Your task to perform on an android device: toggle pop-ups in chrome Image 0: 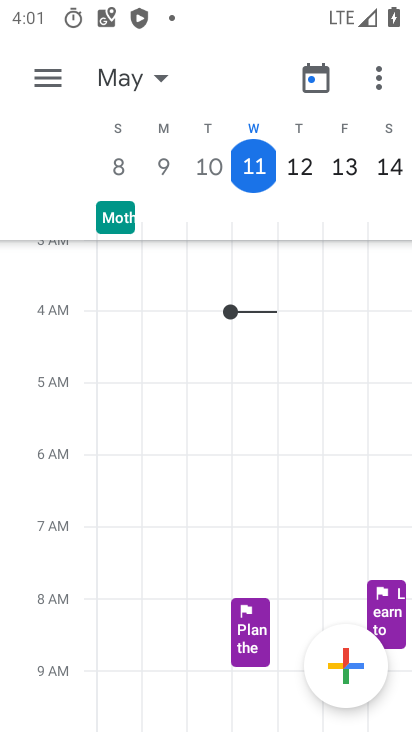
Step 0: press home button
Your task to perform on an android device: toggle pop-ups in chrome Image 1: 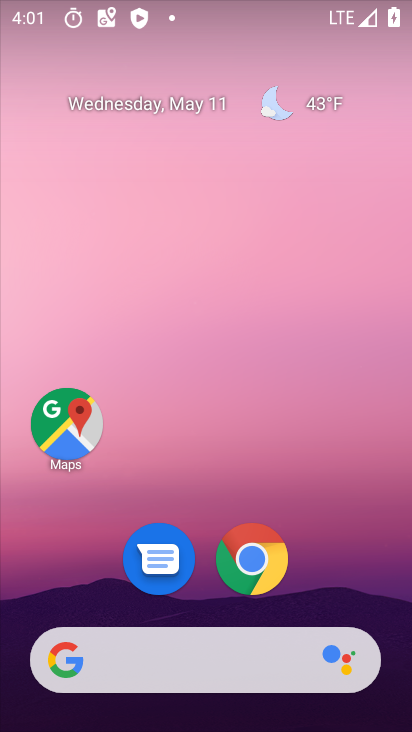
Step 1: click (248, 553)
Your task to perform on an android device: toggle pop-ups in chrome Image 2: 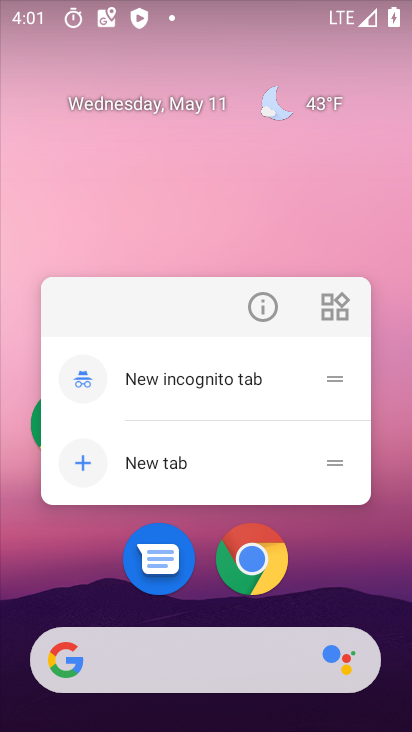
Step 2: click (245, 574)
Your task to perform on an android device: toggle pop-ups in chrome Image 3: 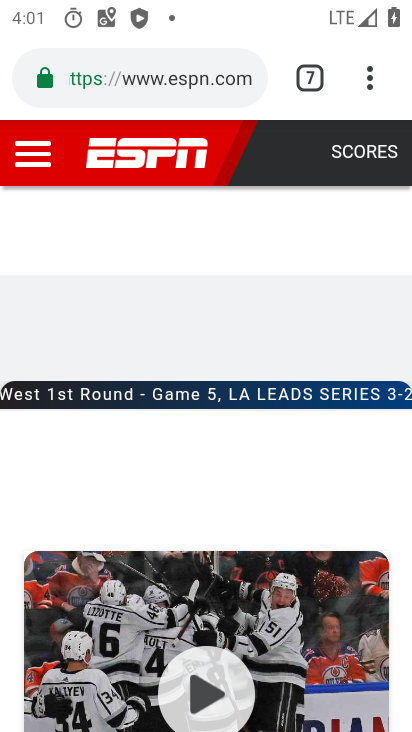
Step 3: click (307, 73)
Your task to perform on an android device: toggle pop-ups in chrome Image 4: 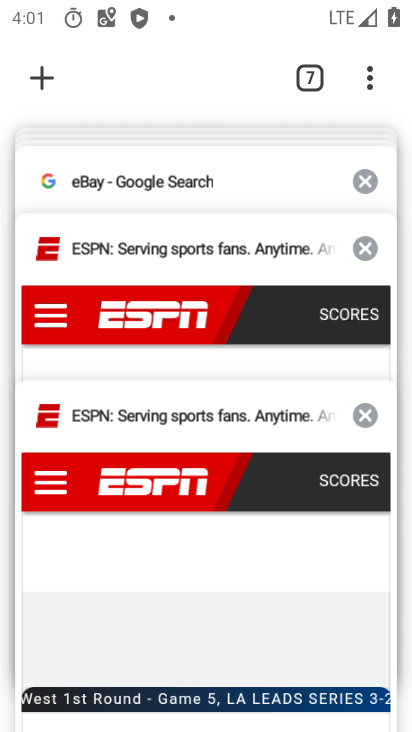
Step 4: click (360, 91)
Your task to perform on an android device: toggle pop-ups in chrome Image 5: 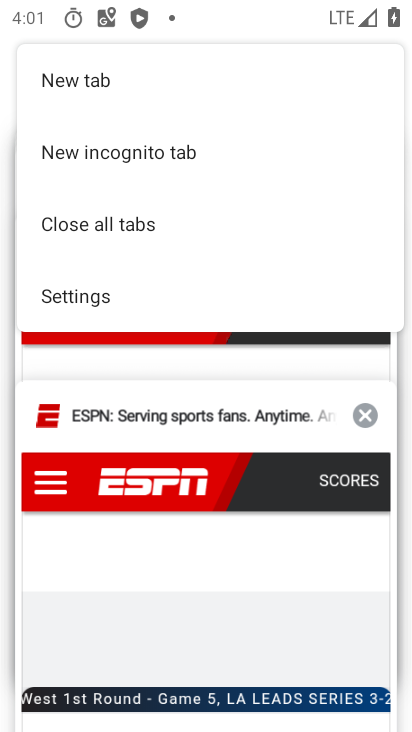
Step 5: click (162, 297)
Your task to perform on an android device: toggle pop-ups in chrome Image 6: 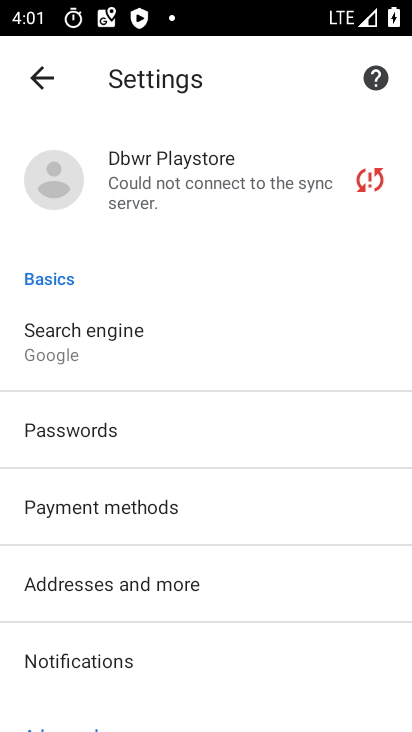
Step 6: click (38, 75)
Your task to perform on an android device: toggle pop-ups in chrome Image 7: 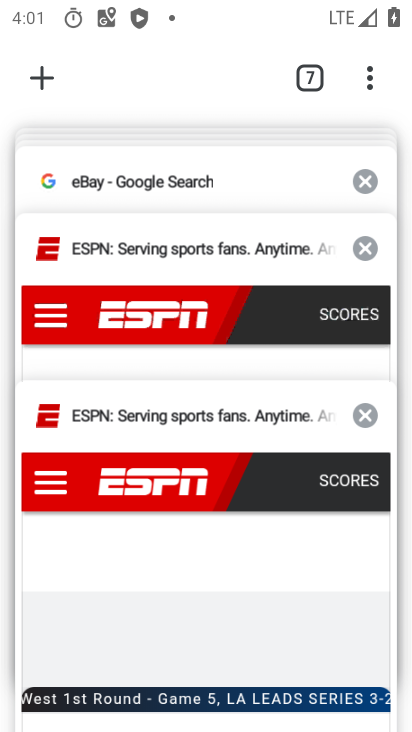
Step 7: click (215, 295)
Your task to perform on an android device: toggle pop-ups in chrome Image 8: 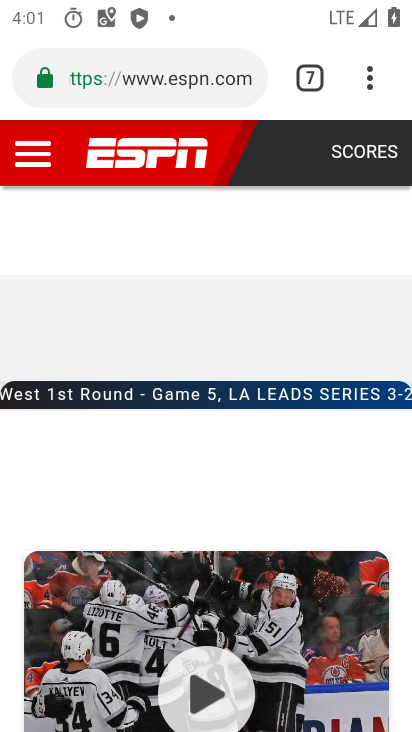
Step 8: click (370, 72)
Your task to perform on an android device: toggle pop-ups in chrome Image 9: 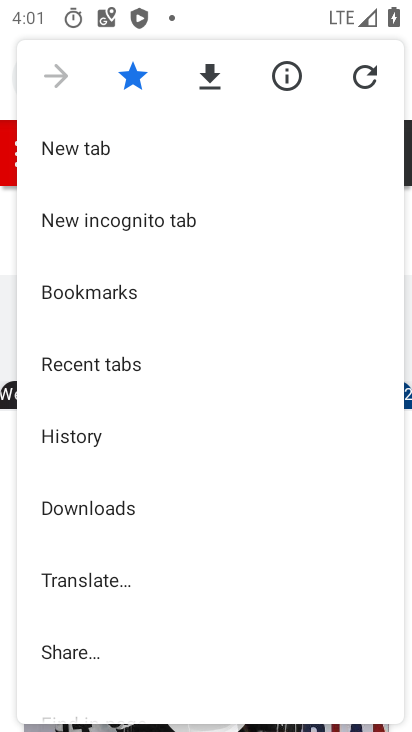
Step 9: drag from (207, 593) to (193, 268)
Your task to perform on an android device: toggle pop-ups in chrome Image 10: 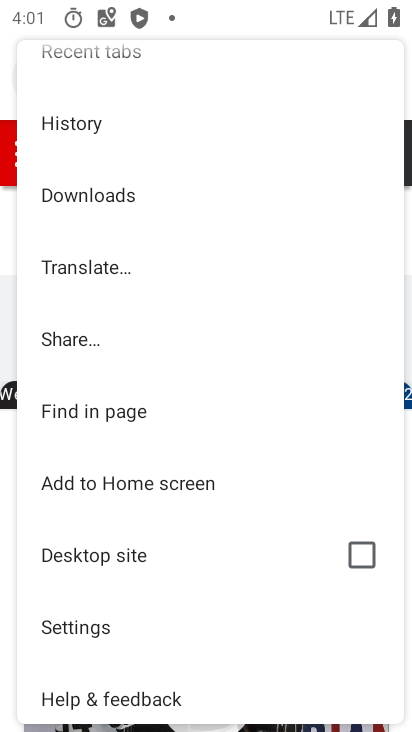
Step 10: click (175, 616)
Your task to perform on an android device: toggle pop-ups in chrome Image 11: 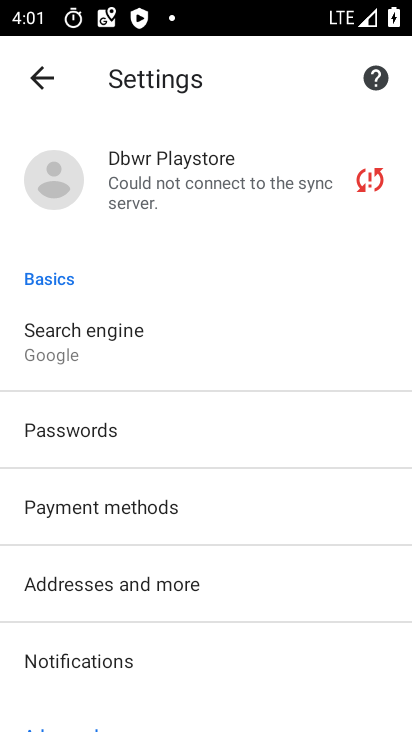
Step 11: drag from (224, 624) to (179, 253)
Your task to perform on an android device: toggle pop-ups in chrome Image 12: 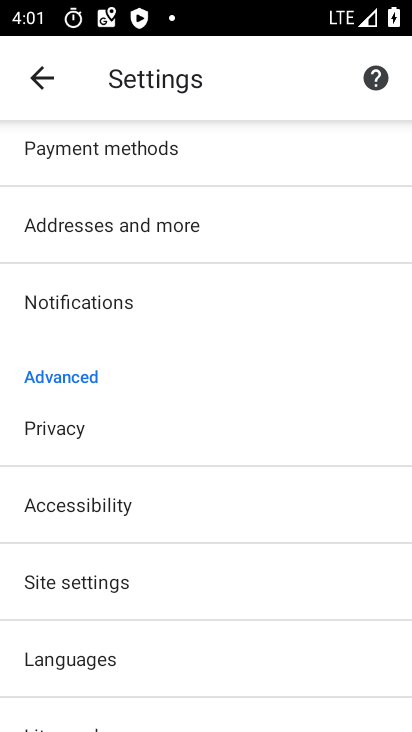
Step 12: drag from (169, 634) to (147, 329)
Your task to perform on an android device: toggle pop-ups in chrome Image 13: 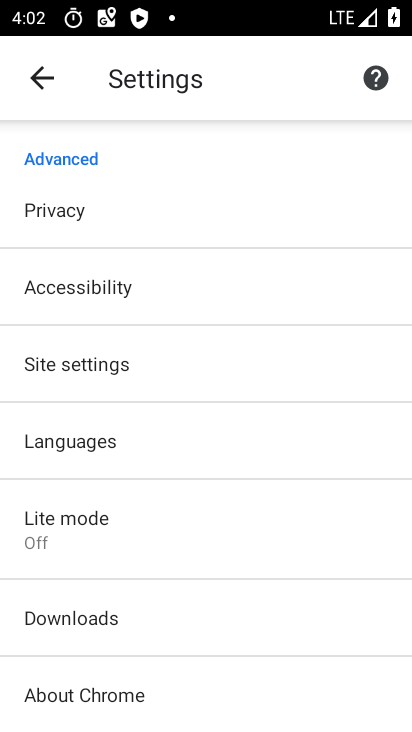
Step 13: drag from (151, 660) to (152, 387)
Your task to perform on an android device: toggle pop-ups in chrome Image 14: 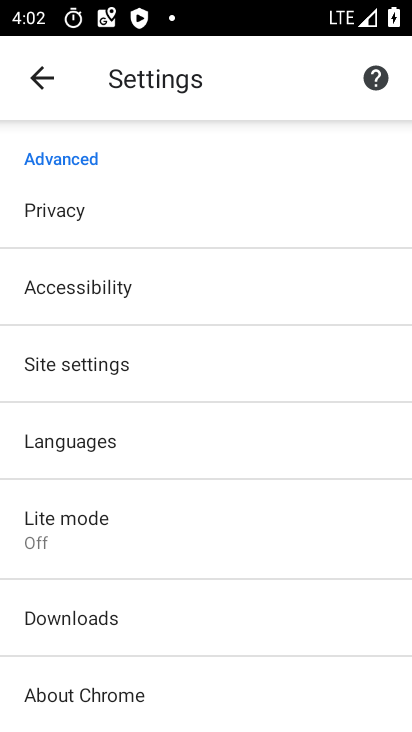
Step 14: click (129, 358)
Your task to perform on an android device: toggle pop-ups in chrome Image 15: 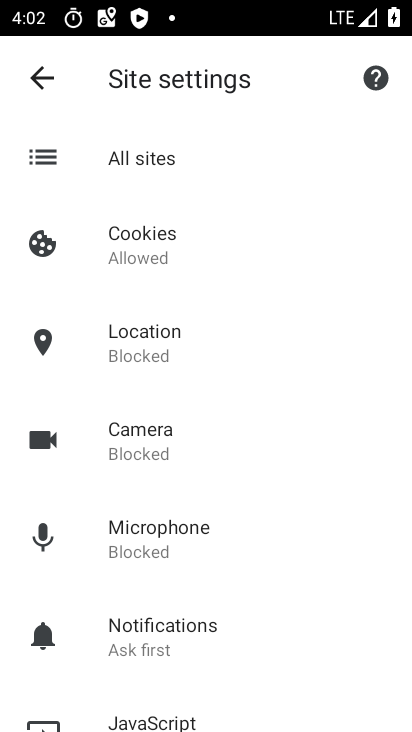
Step 15: drag from (221, 572) to (208, 226)
Your task to perform on an android device: toggle pop-ups in chrome Image 16: 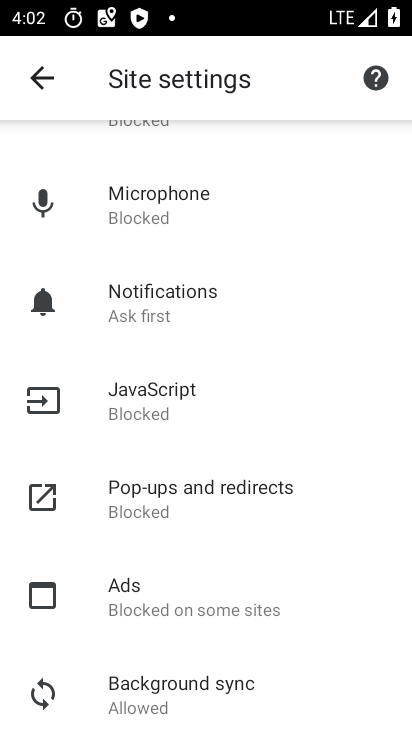
Step 16: click (177, 484)
Your task to perform on an android device: toggle pop-ups in chrome Image 17: 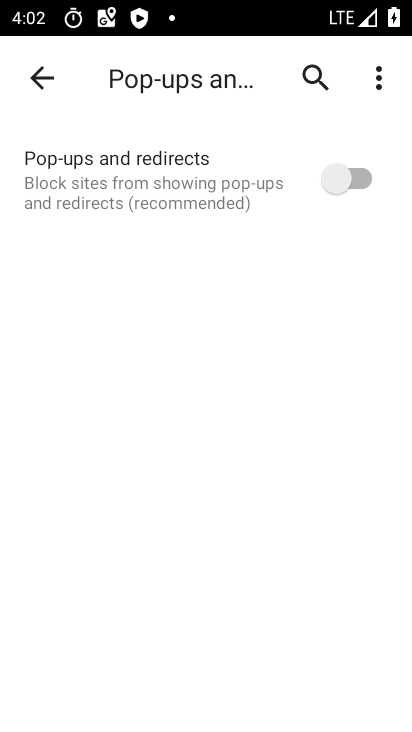
Step 17: click (340, 177)
Your task to perform on an android device: toggle pop-ups in chrome Image 18: 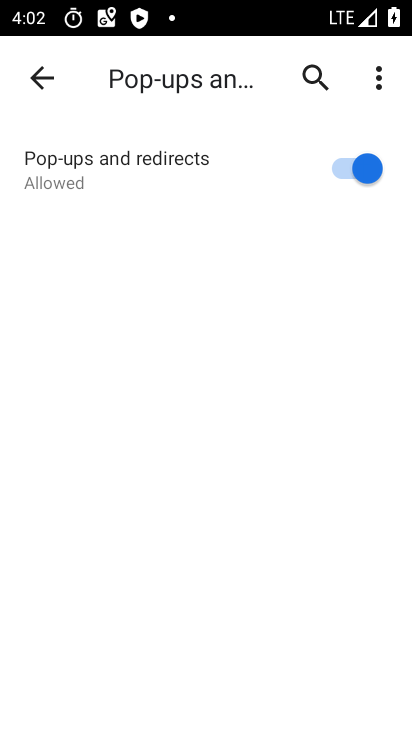
Step 18: task complete